Your task to perform on an android device: When is my next meeting? Image 0: 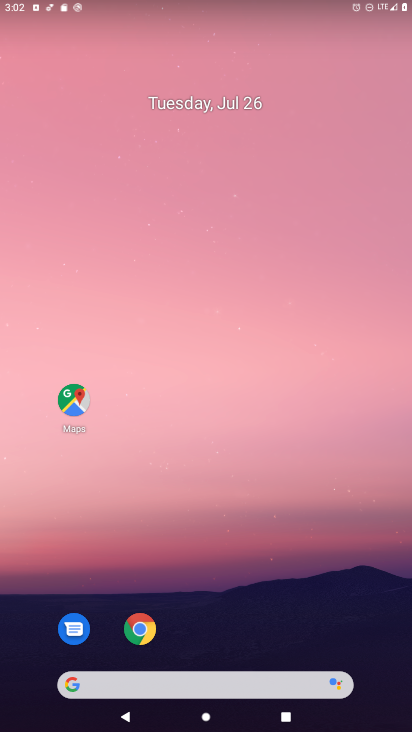
Step 0: drag from (393, 665) to (314, 124)
Your task to perform on an android device: When is my next meeting? Image 1: 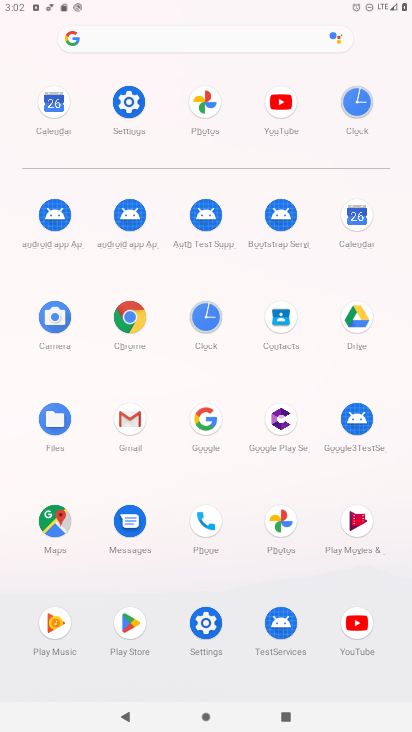
Step 1: click (361, 219)
Your task to perform on an android device: When is my next meeting? Image 2: 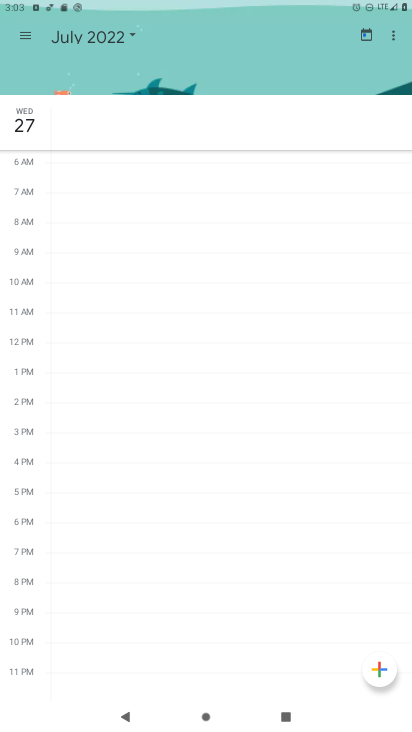
Step 2: click (128, 37)
Your task to perform on an android device: When is my next meeting? Image 3: 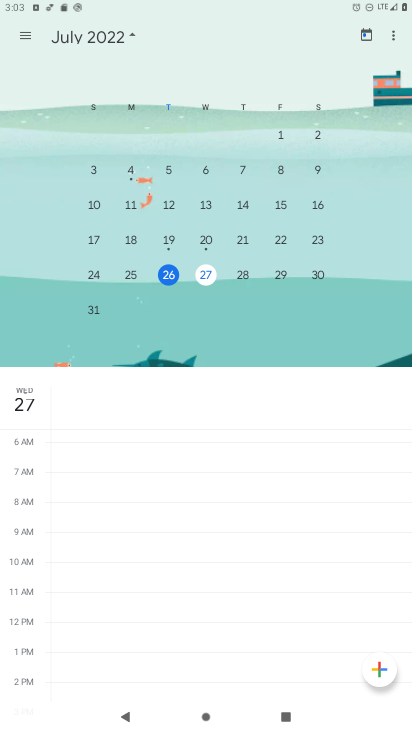
Step 3: click (30, 33)
Your task to perform on an android device: When is my next meeting? Image 4: 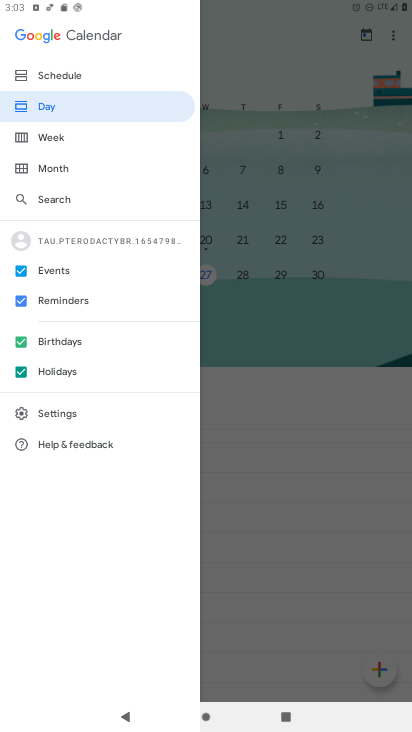
Step 4: click (44, 73)
Your task to perform on an android device: When is my next meeting? Image 5: 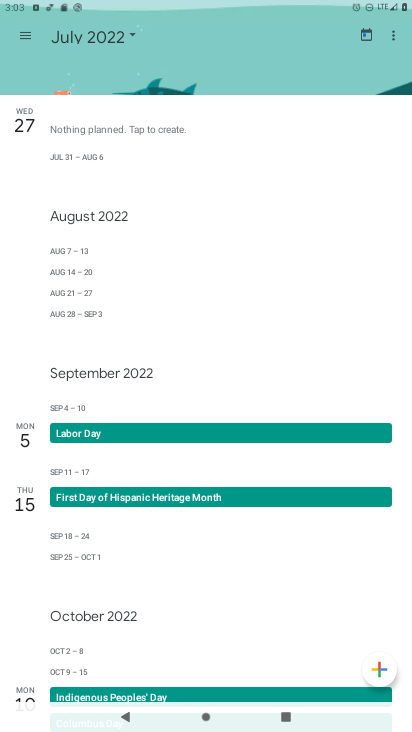
Step 5: task complete